Your task to perform on an android device: Is it going to rain today? Image 0: 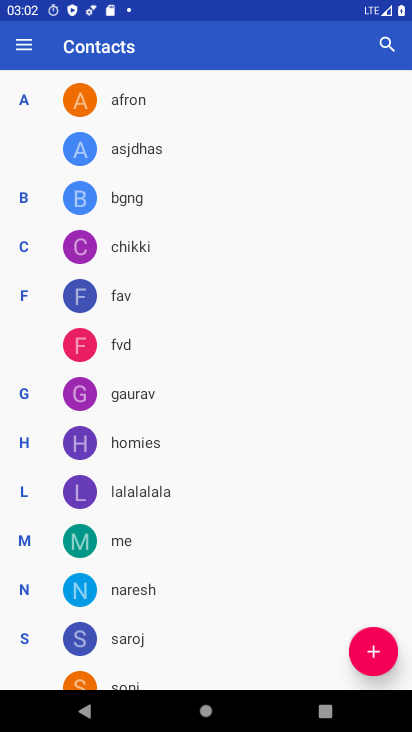
Step 0: press home button
Your task to perform on an android device: Is it going to rain today? Image 1: 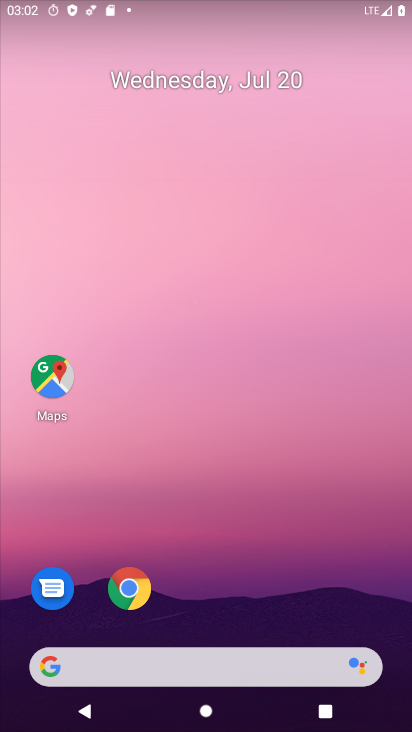
Step 1: drag from (172, 623) to (246, 123)
Your task to perform on an android device: Is it going to rain today? Image 2: 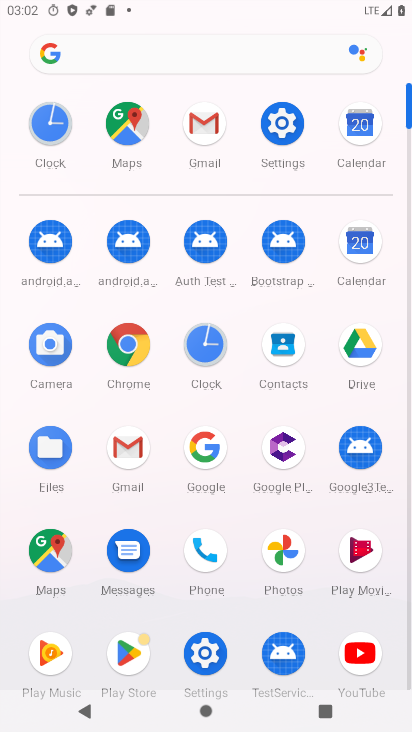
Step 2: click (129, 66)
Your task to perform on an android device: Is it going to rain today? Image 3: 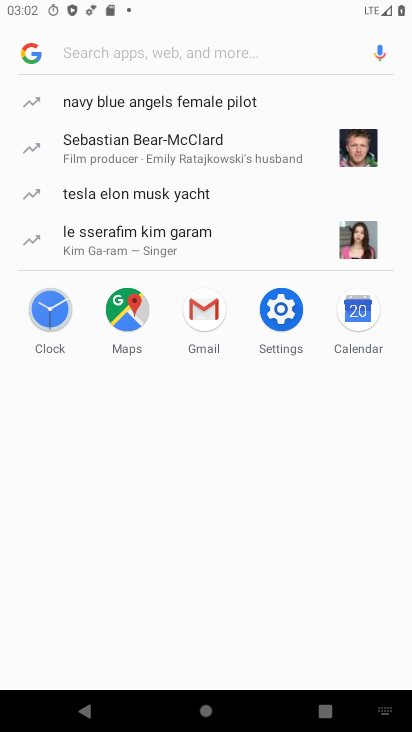
Step 3: type "Is it going to rain today?"
Your task to perform on an android device: Is it going to rain today? Image 4: 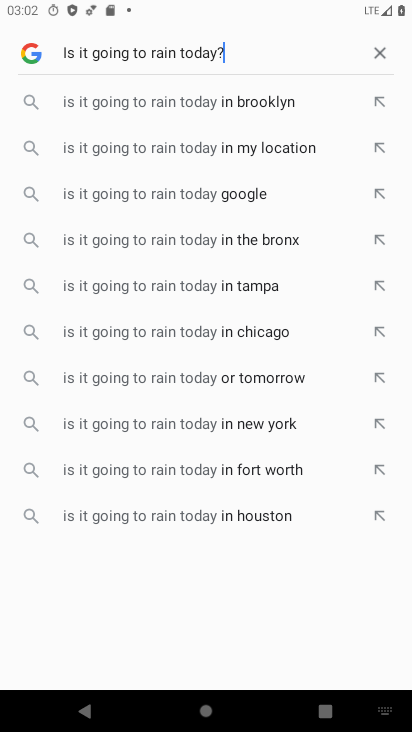
Step 4: type ""
Your task to perform on an android device: Is it going to rain today? Image 5: 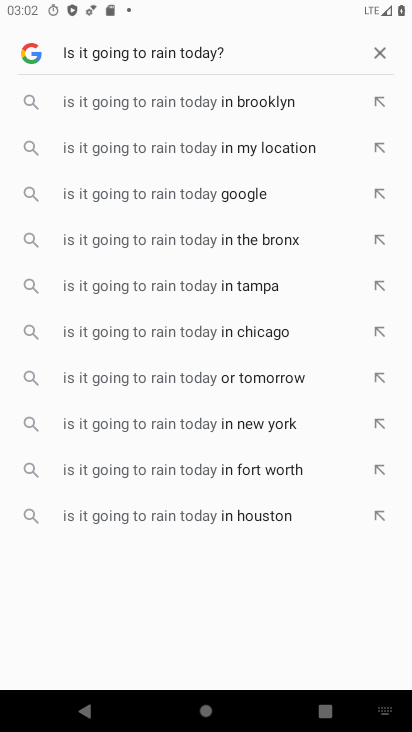
Step 5: click (192, 202)
Your task to perform on an android device: Is it going to rain today? Image 6: 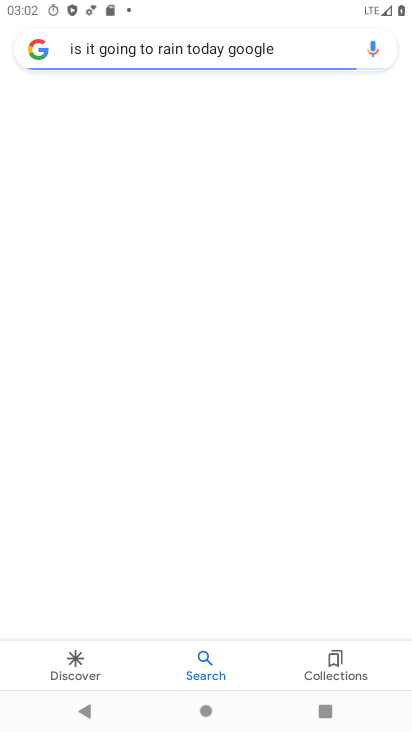
Step 6: task complete